Your task to perform on an android device: check battery use Image 0: 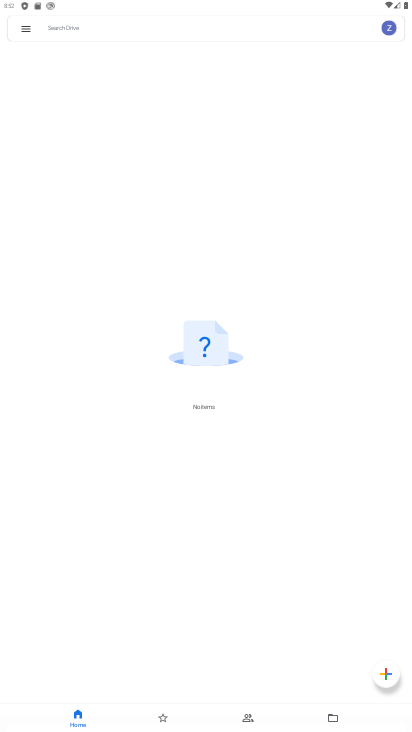
Step 0: press home button
Your task to perform on an android device: check battery use Image 1: 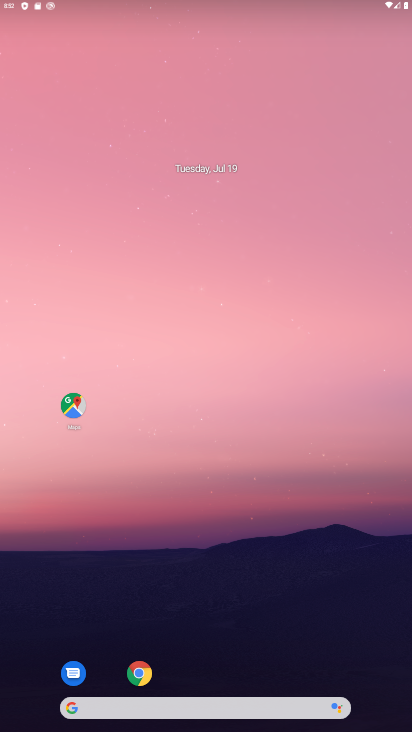
Step 1: drag from (195, 637) to (184, 38)
Your task to perform on an android device: check battery use Image 2: 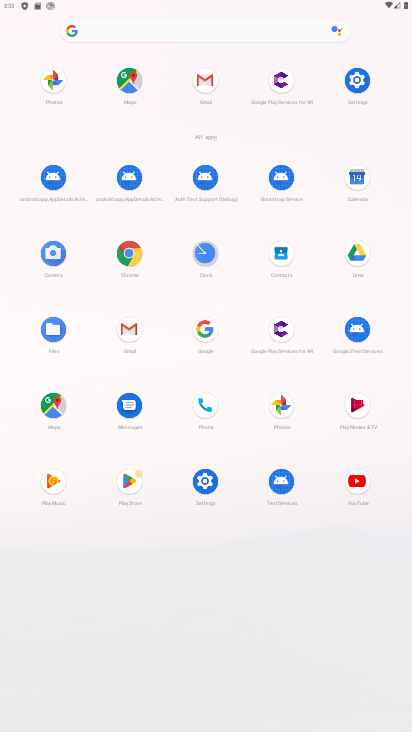
Step 2: click (208, 488)
Your task to perform on an android device: check battery use Image 3: 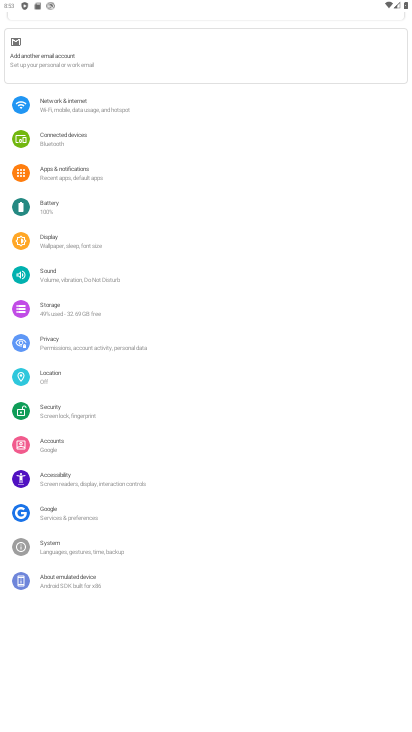
Step 3: click (56, 212)
Your task to perform on an android device: check battery use Image 4: 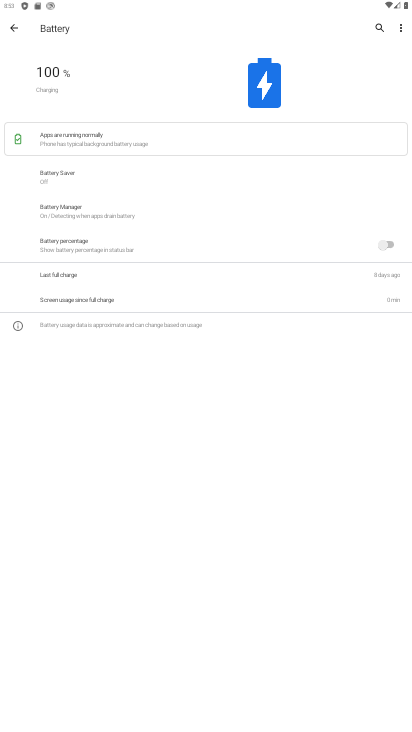
Step 4: click (398, 25)
Your task to perform on an android device: check battery use Image 5: 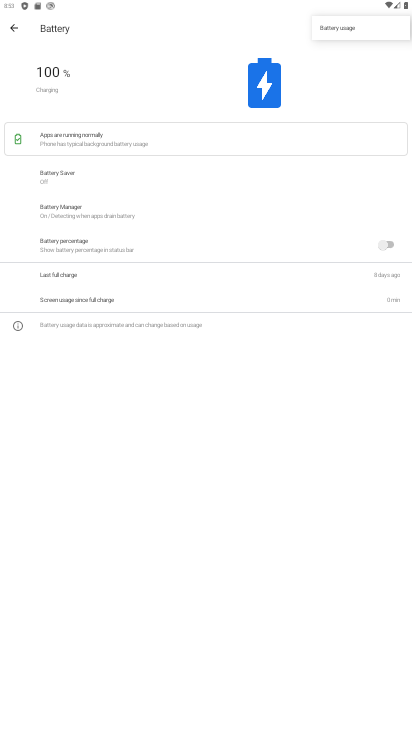
Step 5: click (356, 29)
Your task to perform on an android device: check battery use Image 6: 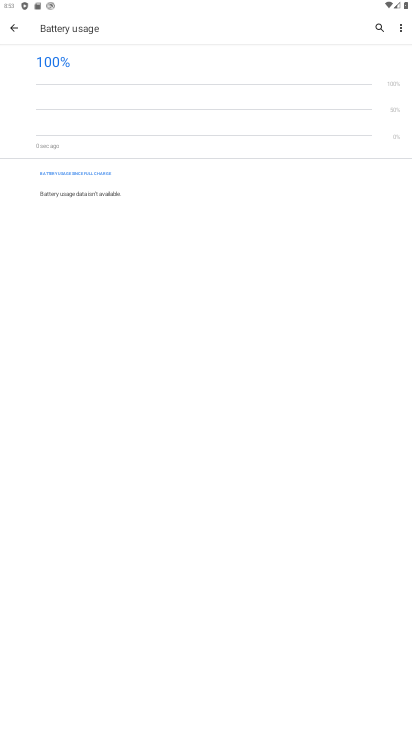
Step 6: task complete